Your task to perform on an android device: Go to Yahoo.com Image 0: 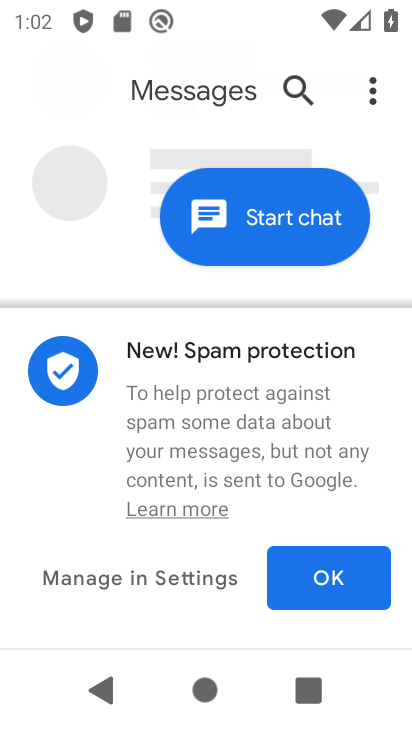
Step 0: press home button
Your task to perform on an android device: Go to Yahoo.com Image 1: 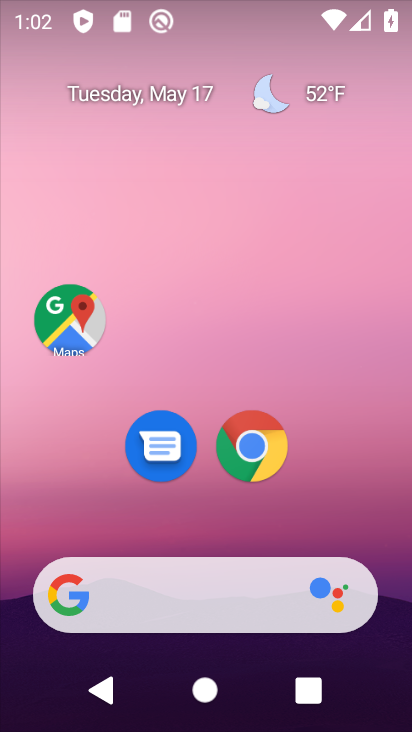
Step 1: drag from (353, 476) to (292, 29)
Your task to perform on an android device: Go to Yahoo.com Image 2: 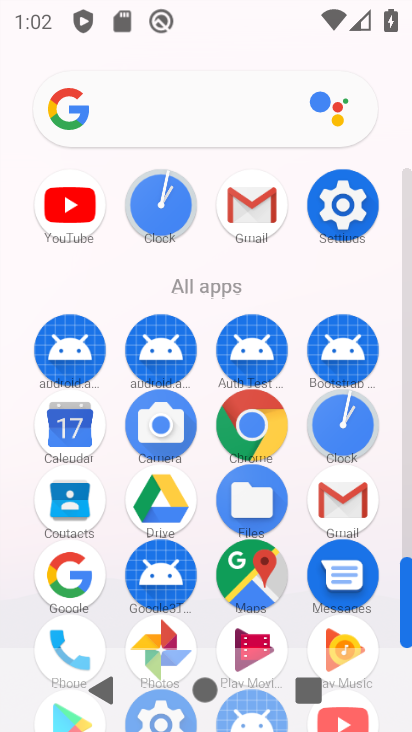
Step 2: click (240, 410)
Your task to perform on an android device: Go to Yahoo.com Image 3: 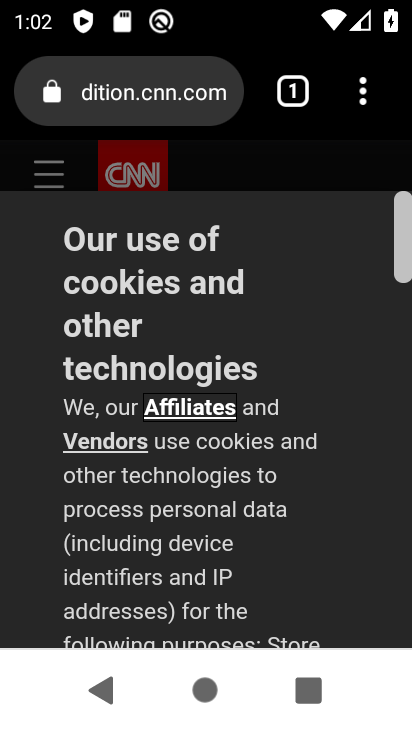
Step 3: click (311, 101)
Your task to perform on an android device: Go to Yahoo.com Image 4: 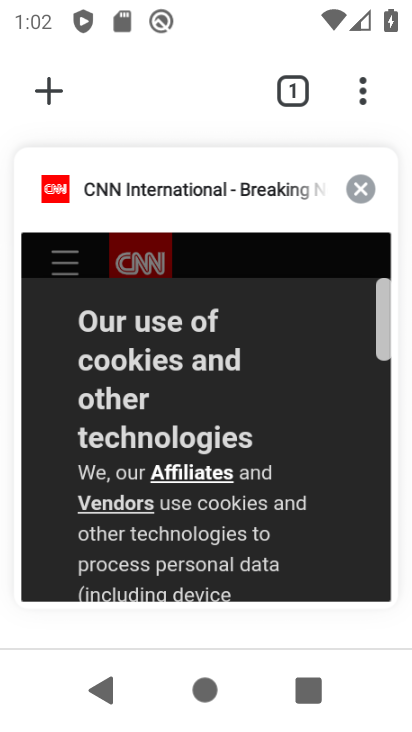
Step 4: click (369, 182)
Your task to perform on an android device: Go to Yahoo.com Image 5: 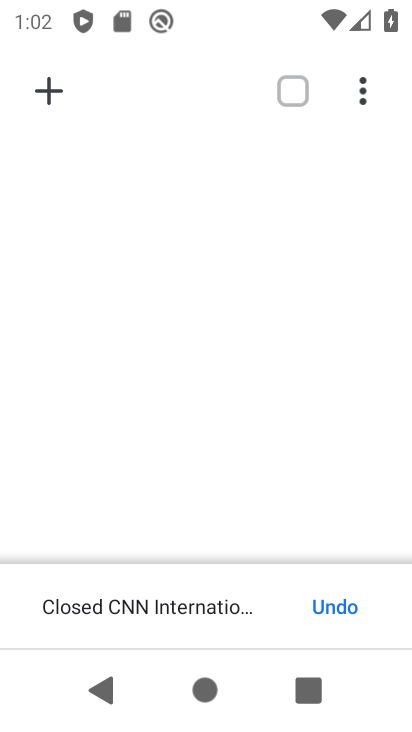
Step 5: click (58, 99)
Your task to perform on an android device: Go to Yahoo.com Image 6: 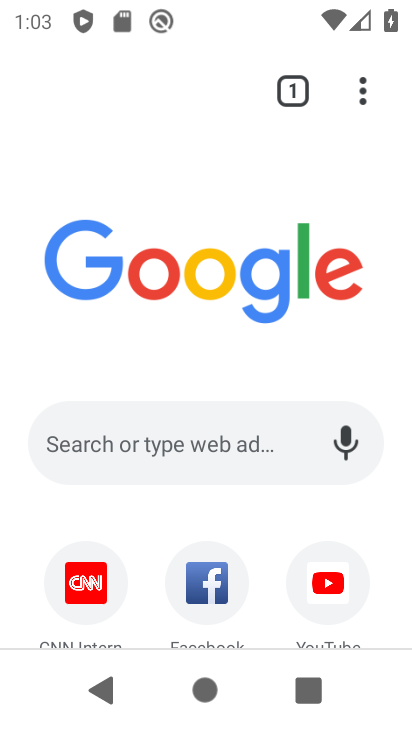
Step 6: drag from (207, 520) to (170, 189)
Your task to perform on an android device: Go to Yahoo.com Image 7: 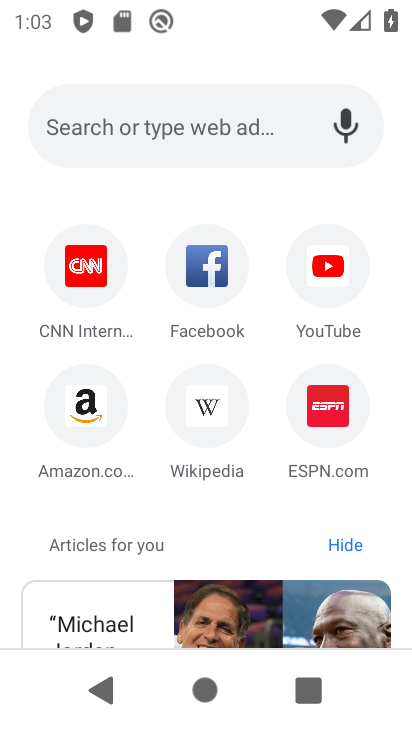
Step 7: click (118, 117)
Your task to perform on an android device: Go to Yahoo.com Image 8: 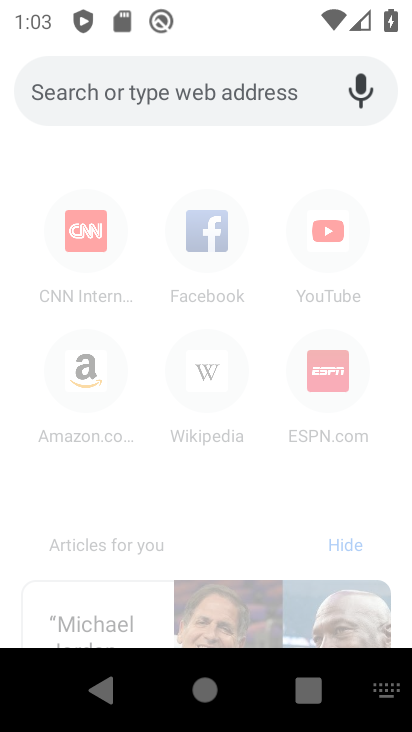
Step 8: type "yahoo.com"
Your task to perform on an android device: Go to Yahoo.com Image 9: 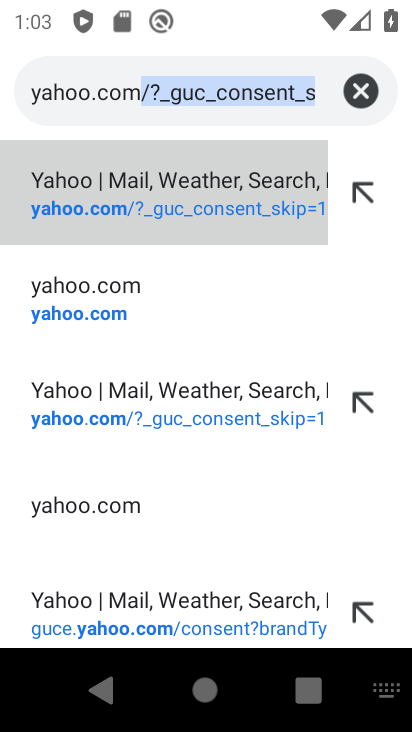
Step 9: click (188, 189)
Your task to perform on an android device: Go to Yahoo.com Image 10: 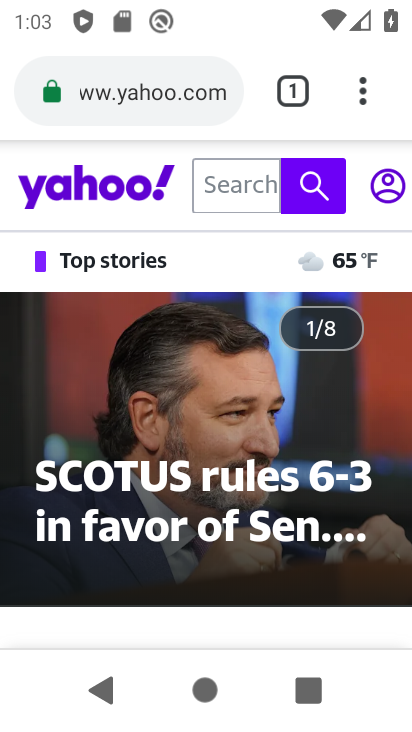
Step 10: click (72, 183)
Your task to perform on an android device: Go to Yahoo.com Image 11: 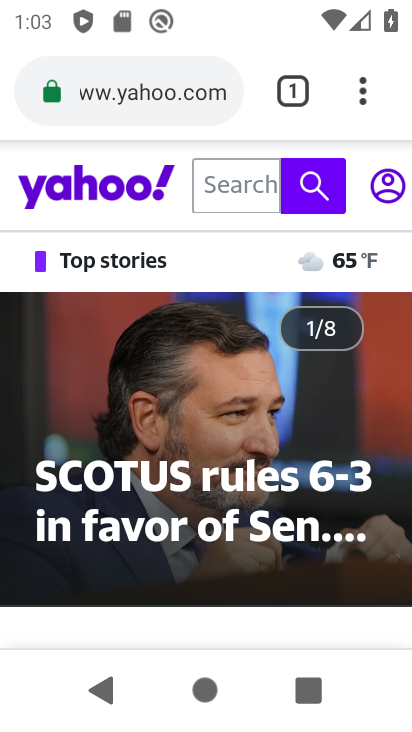
Step 11: task complete